Your task to perform on an android device: open a bookmark in the chrome app Image 0: 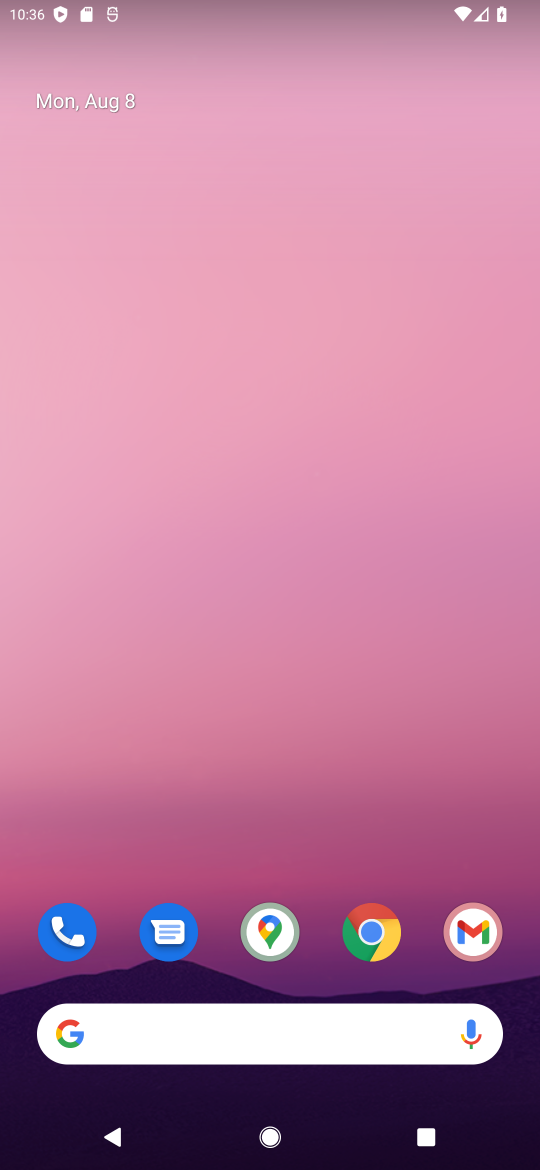
Step 0: click (367, 936)
Your task to perform on an android device: open a bookmark in the chrome app Image 1: 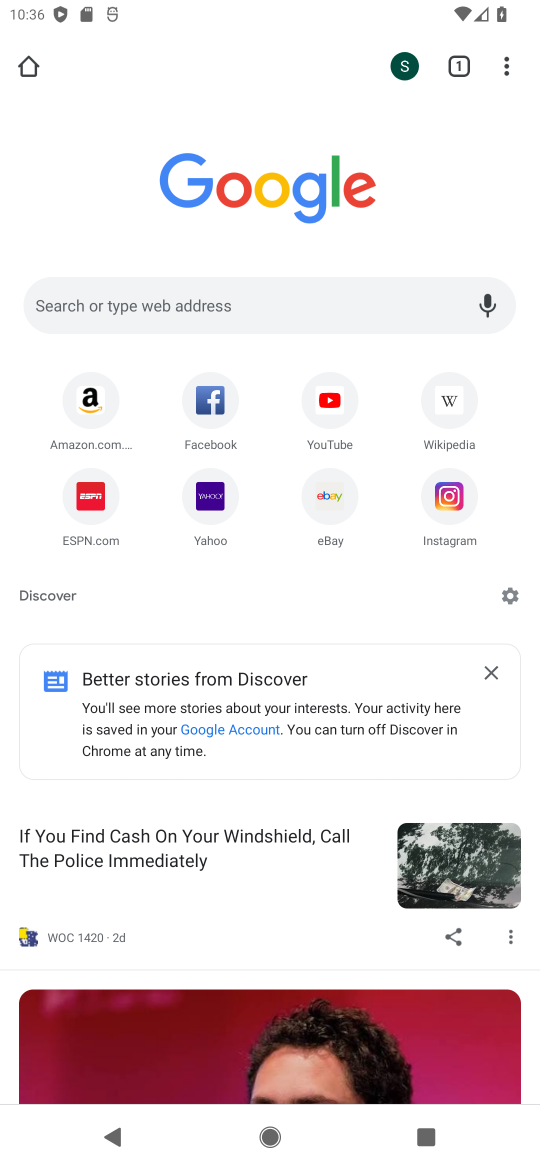
Step 1: click (517, 84)
Your task to perform on an android device: open a bookmark in the chrome app Image 2: 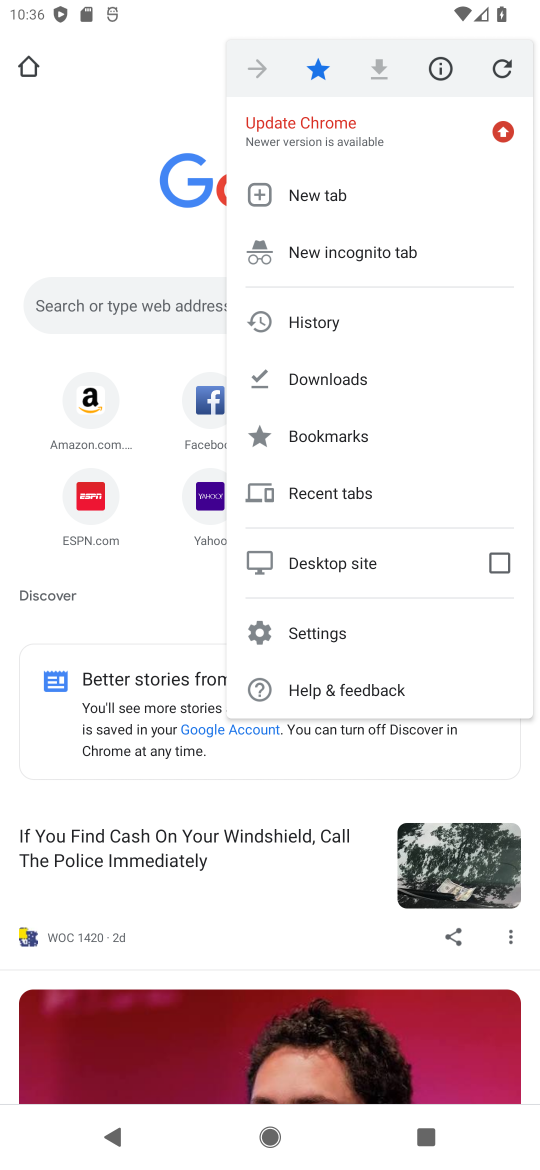
Step 2: click (306, 430)
Your task to perform on an android device: open a bookmark in the chrome app Image 3: 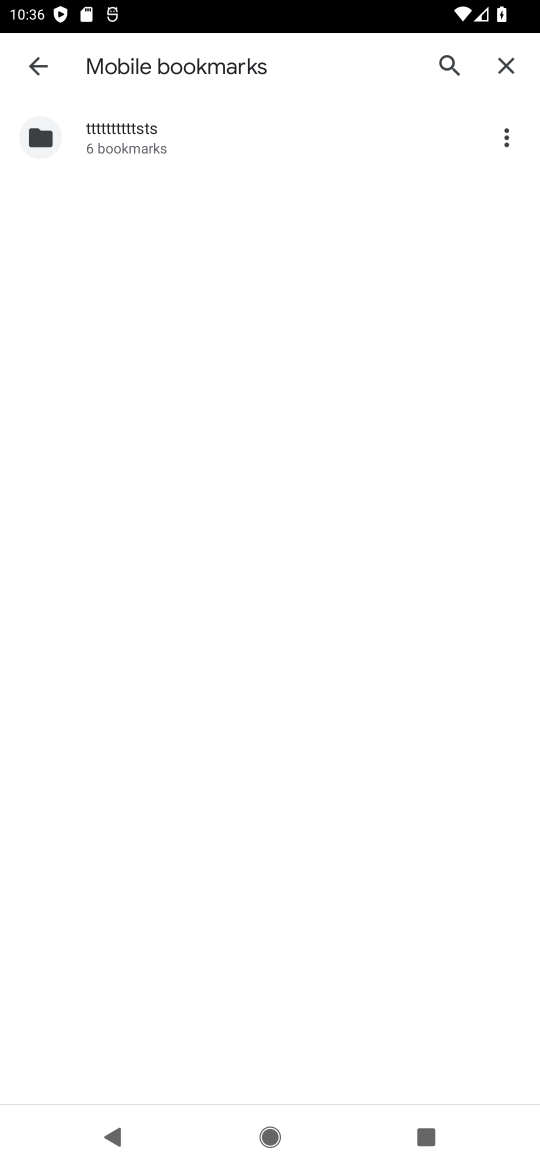
Step 3: click (202, 159)
Your task to perform on an android device: open a bookmark in the chrome app Image 4: 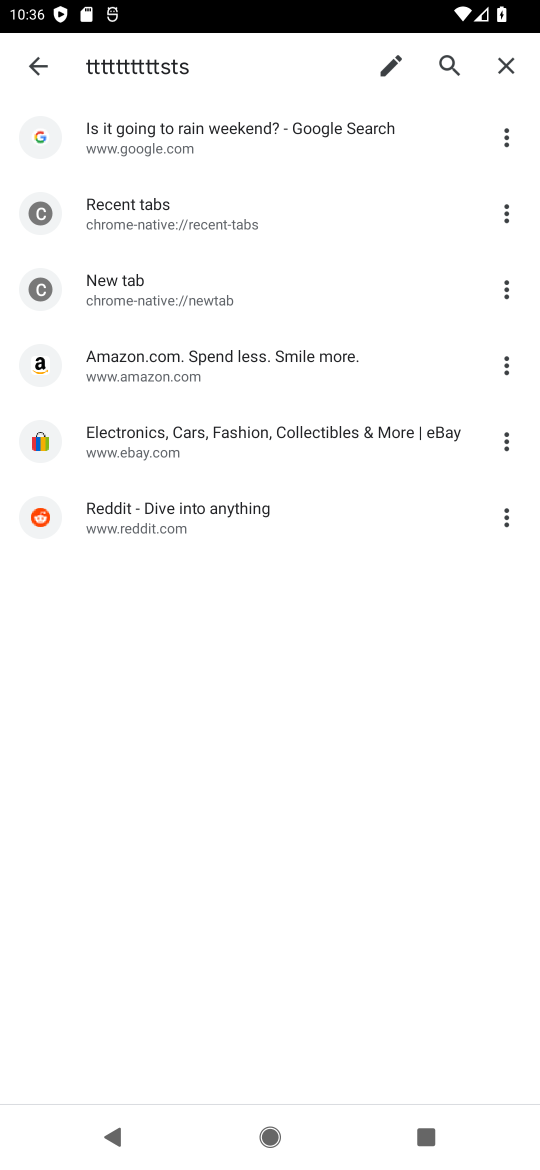
Step 4: click (191, 520)
Your task to perform on an android device: open a bookmark in the chrome app Image 5: 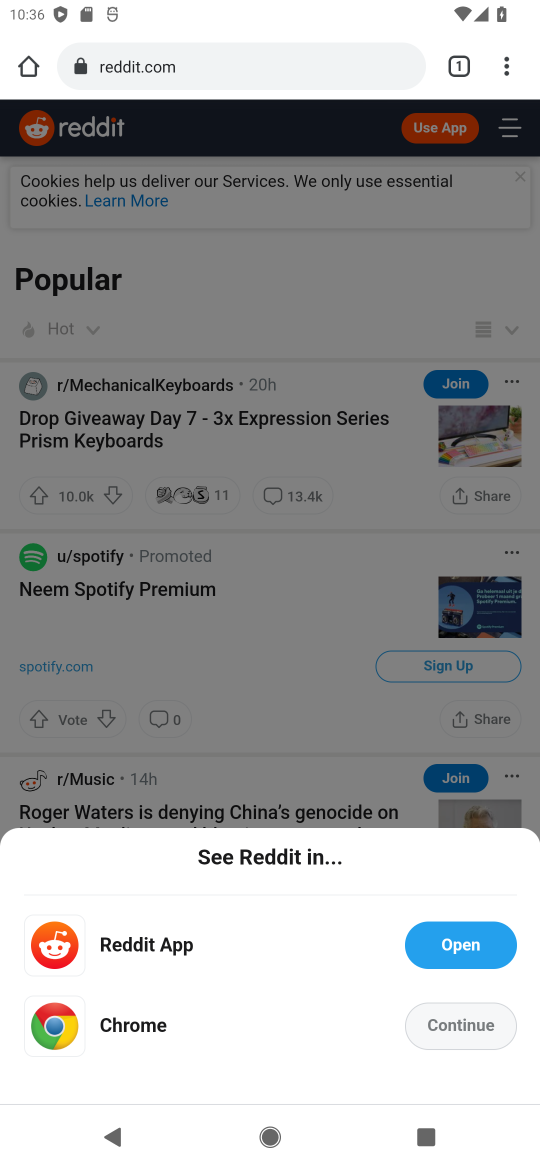
Step 5: task complete